Your task to perform on an android device: turn off smart reply in the gmail app Image 0: 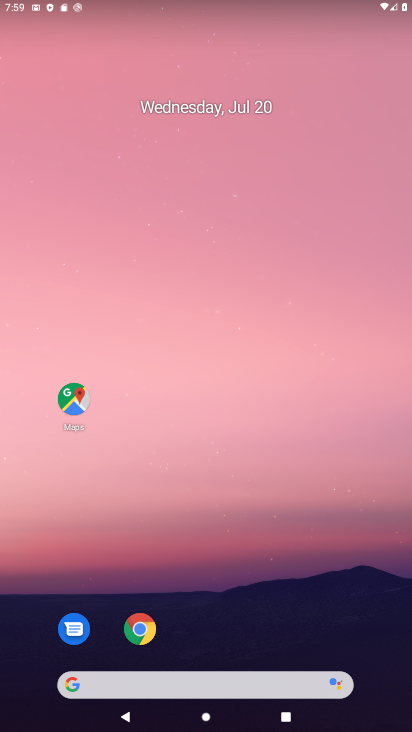
Step 0: drag from (202, 625) to (254, 207)
Your task to perform on an android device: turn off smart reply in the gmail app Image 1: 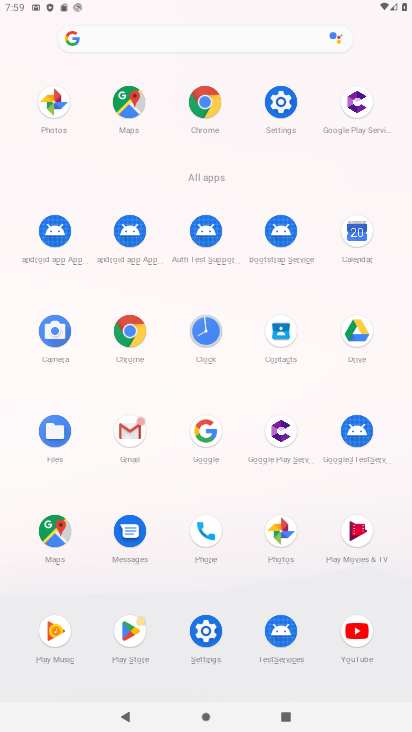
Step 1: click (128, 426)
Your task to perform on an android device: turn off smart reply in the gmail app Image 2: 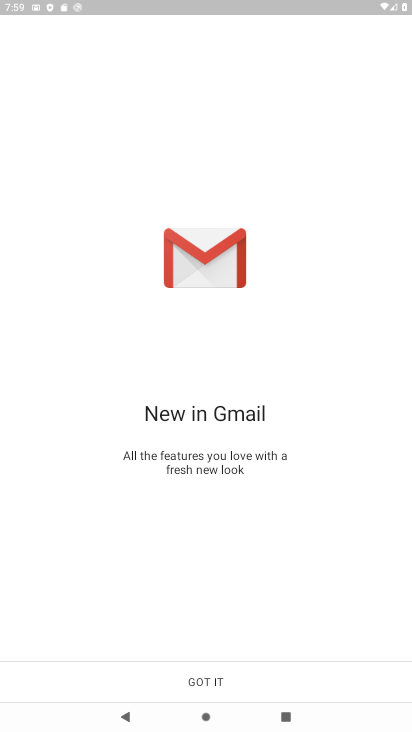
Step 2: click (254, 682)
Your task to perform on an android device: turn off smart reply in the gmail app Image 3: 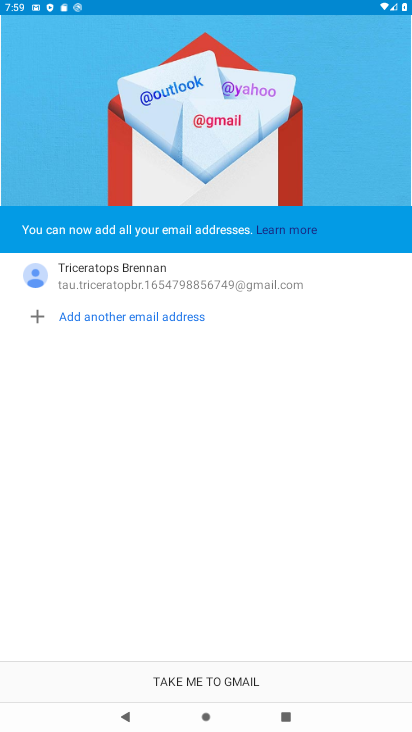
Step 3: click (240, 681)
Your task to perform on an android device: turn off smart reply in the gmail app Image 4: 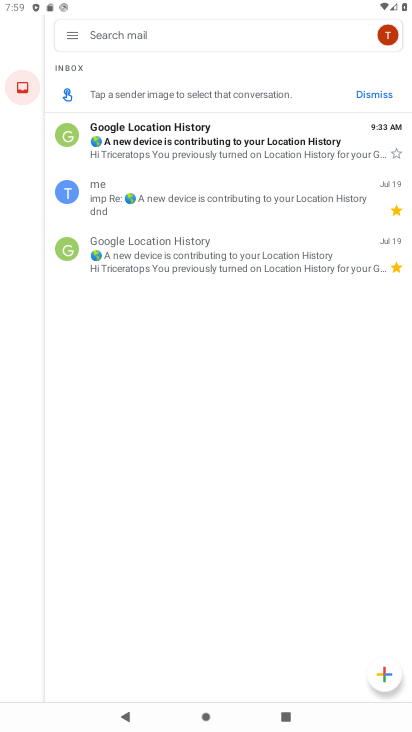
Step 4: click (64, 38)
Your task to perform on an android device: turn off smart reply in the gmail app Image 5: 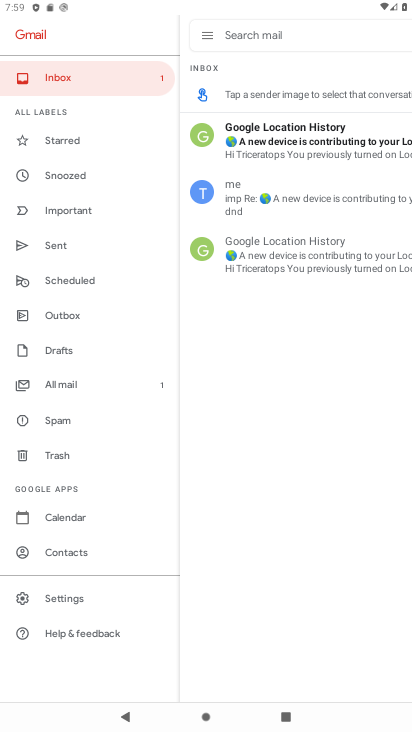
Step 5: click (79, 591)
Your task to perform on an android device: turn off smart reply in the gmail app Image 6: 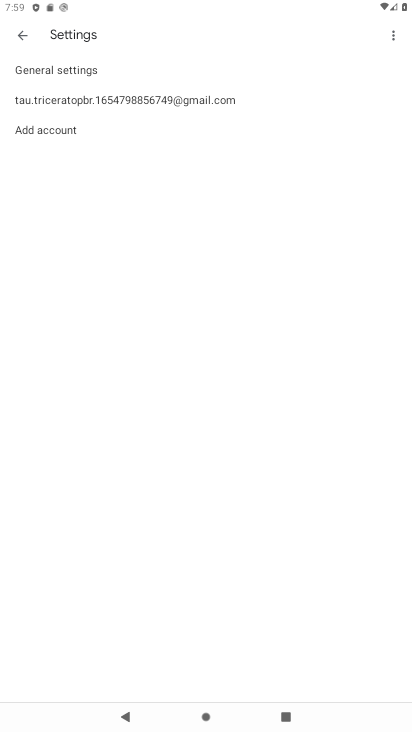
Step 6: click (159, 103)
Your task to perform on an android device: turn off smart reply in the gmail app Image 7: 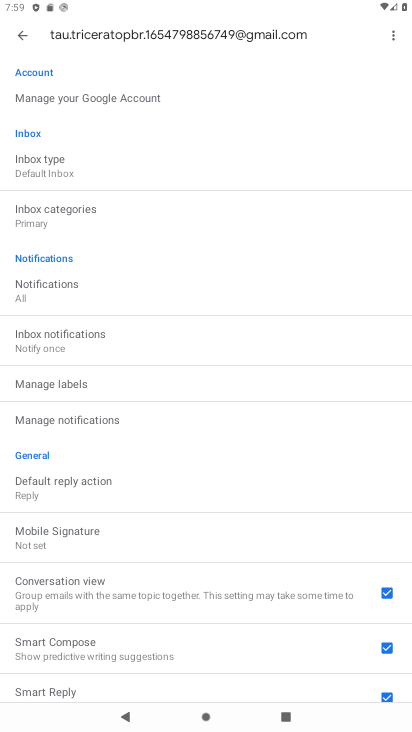
Step 7: drag from (94, 569) to (156, 182)
Your task to perform on an android device: turn off smart reply in the gmail app Image 8: 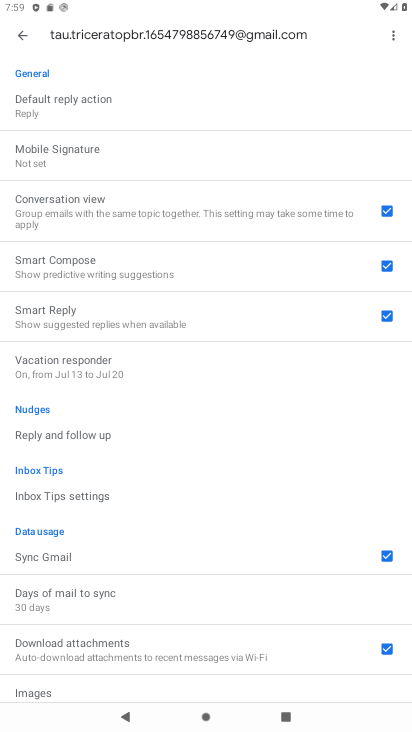
Step 8: drag from (95, 479) to (144, 204)
Your task to perform on an android device: turn off smart reply in the gmail app Image 9: 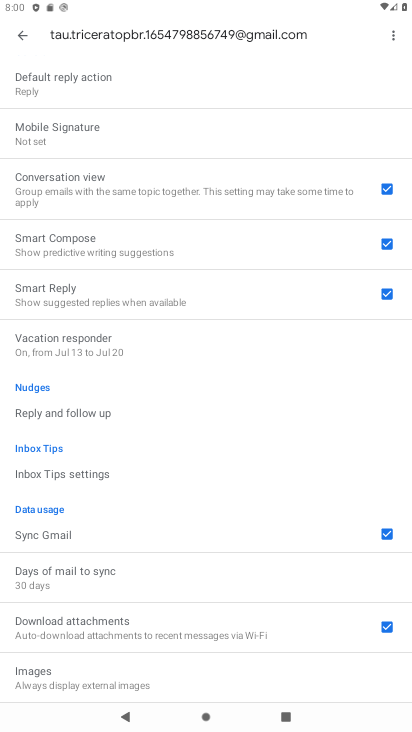
Step 9: click (386, 302)
Your task to perform on an android device: turn off smart reply in the gmail app Image 10: 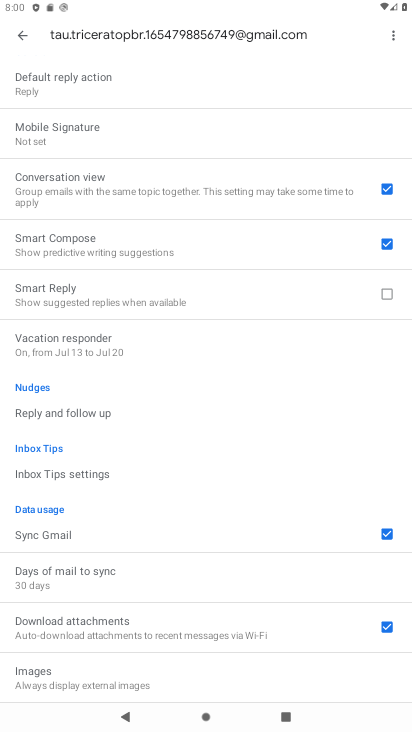
Step 10: task complete